Your task to perform on an android device: Open Youtube and go to the subscriptions tab Image 0: 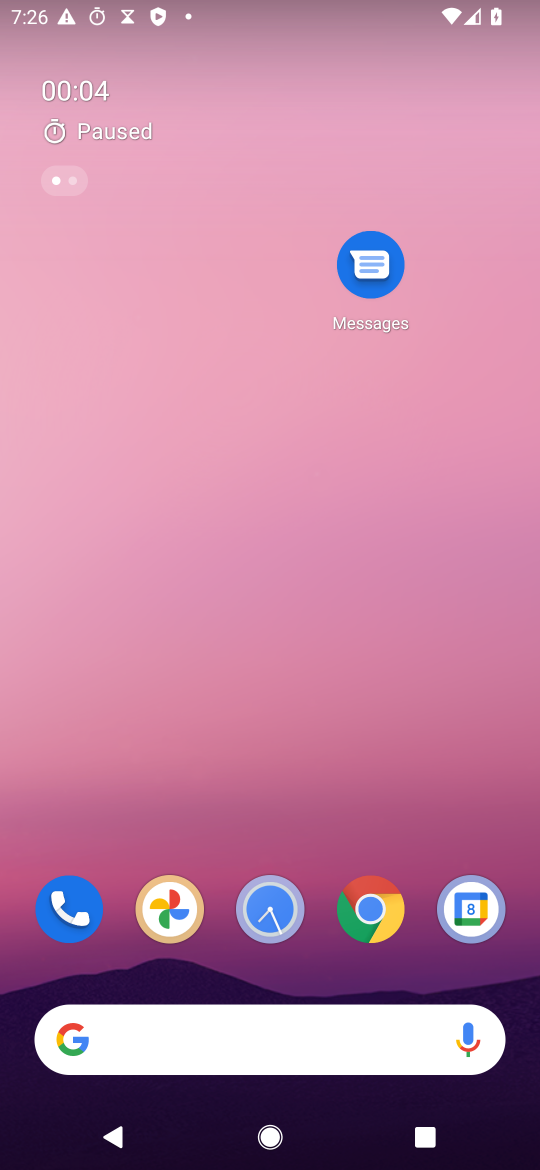
Step 0: press home button
Your task to perform on an android device: Open Youtube and go to the subscriptions tab Image 1: 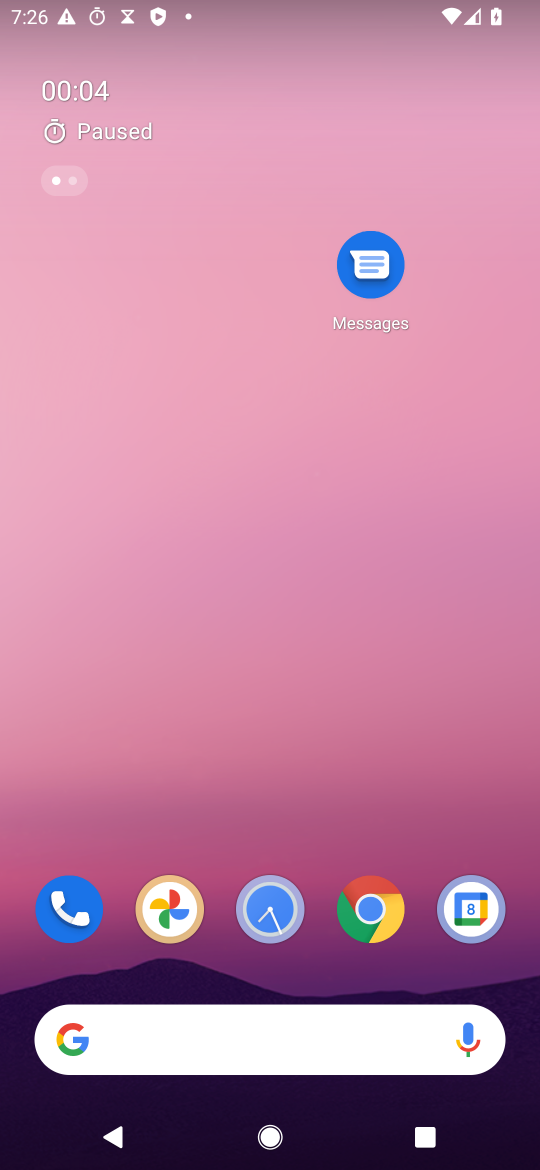
Step 1: drag from (214, 1009) to (385, 123)
Your task to perform on an android device: Open Youtube and go to the subscriptions tab Image 2: 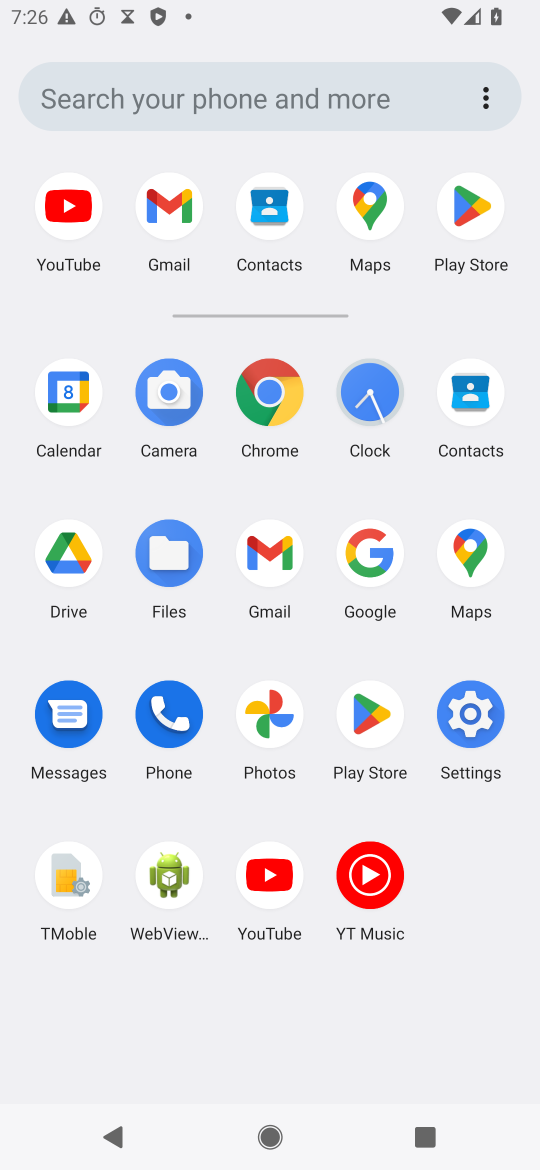
Step 2: click (269, 860)
Your task to perform on an android device: Open Youtube and go to the subscriptions tab Image 3: 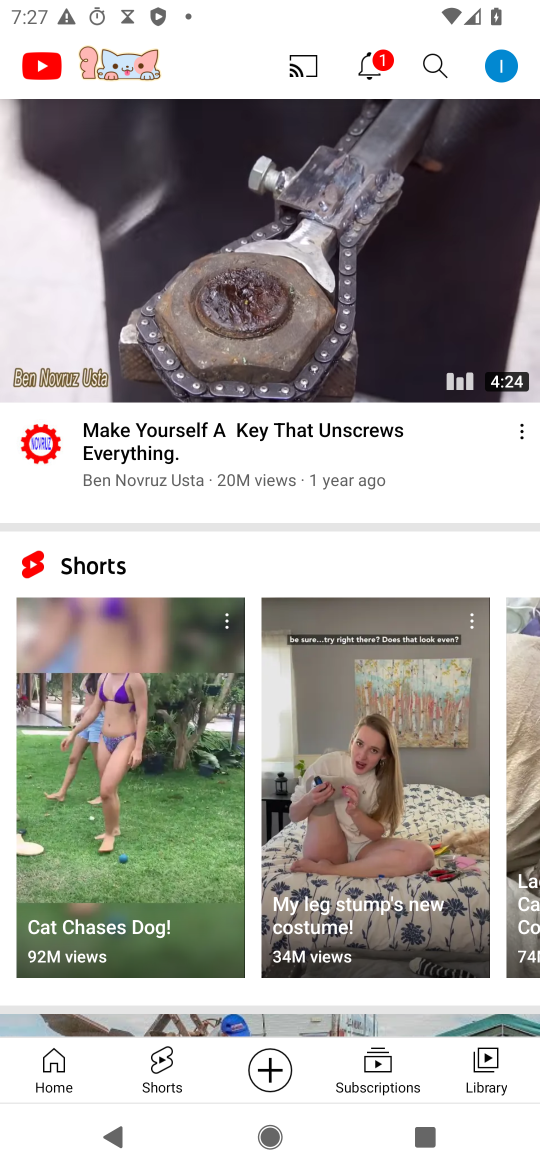
Step 3: click (386, 1053)
Your task to perform on an android device: Open Youtube and go to the subscriptions tab Image 4: 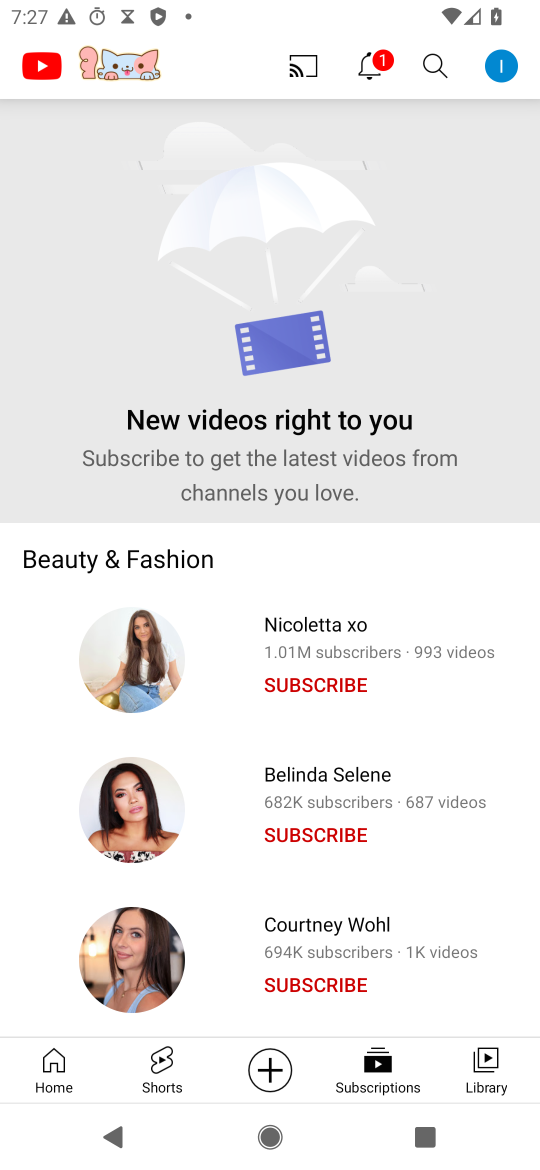
Step 4: task complete